Your task to perform on an android device: check storage Image 0: 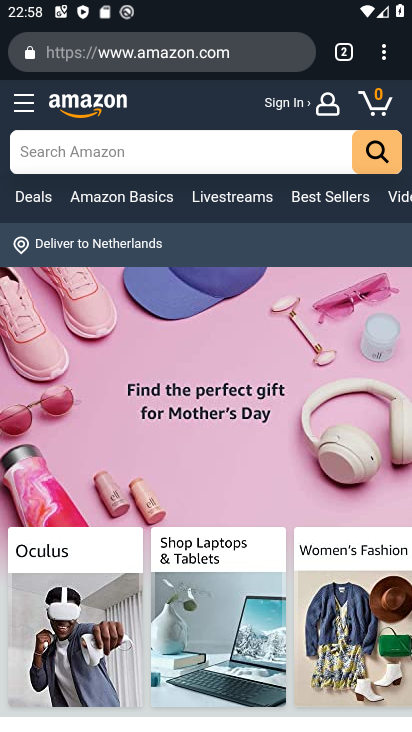
Step 0: press home button
Your task to perform on an android device: check storage Image 1: 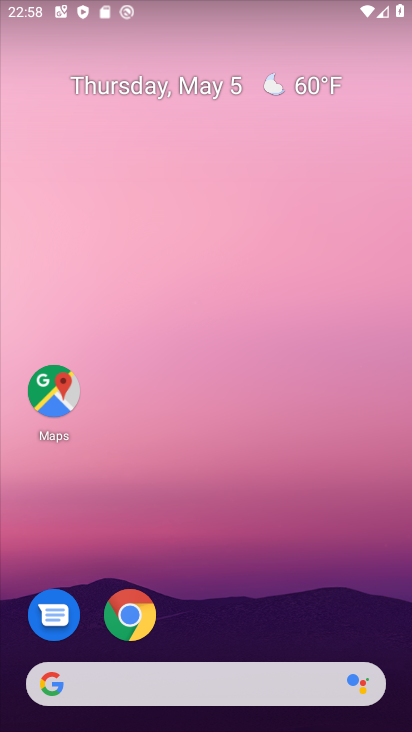
Step 1: drag from (237, 615) to (193, 200)
Your task to perform on an android device: check storage Image 2: 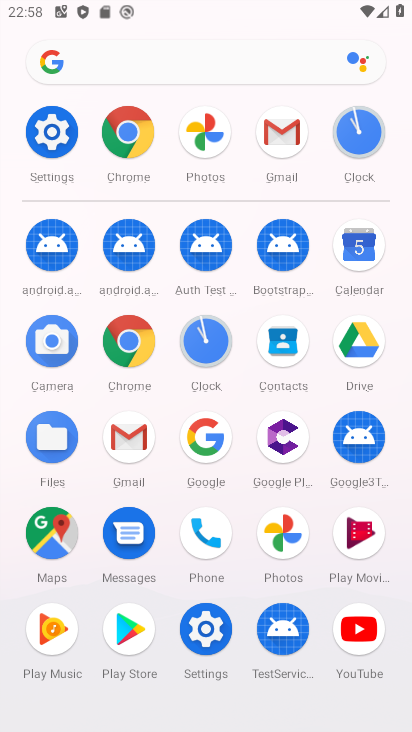
Step 2: click (208, 632)
Your task to perform on an android device: check storage Image 3: 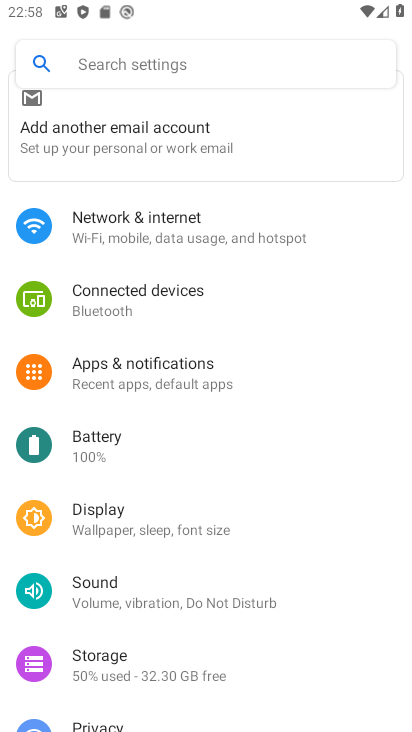
Step 3: click (130, 656)
Your task to perform on an android device: check storage Image 4: 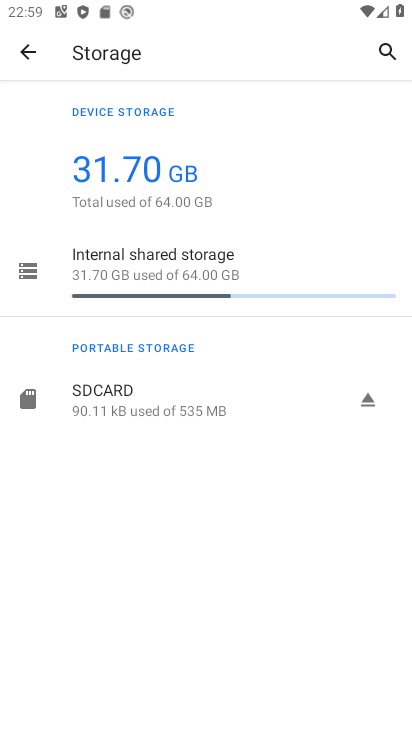
Step 4: task complete